Your task to perform on an android device: Open my contact list Image 0: 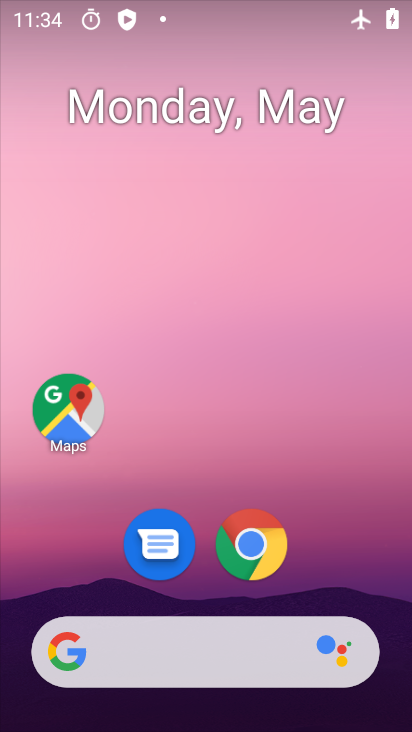
Step 0: drag from (324, 549) to (335, 104)
Your task to perform on an android device: Open my contact list Image 1: 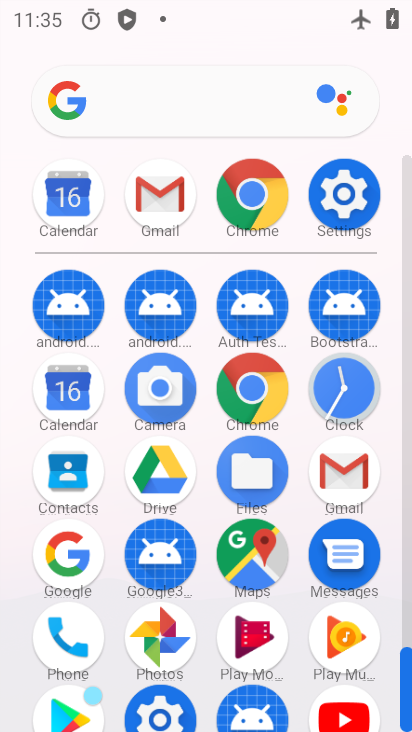
Step 1: click (67, 458)
Your task to perform on an android device: Open my contact list Image 2: 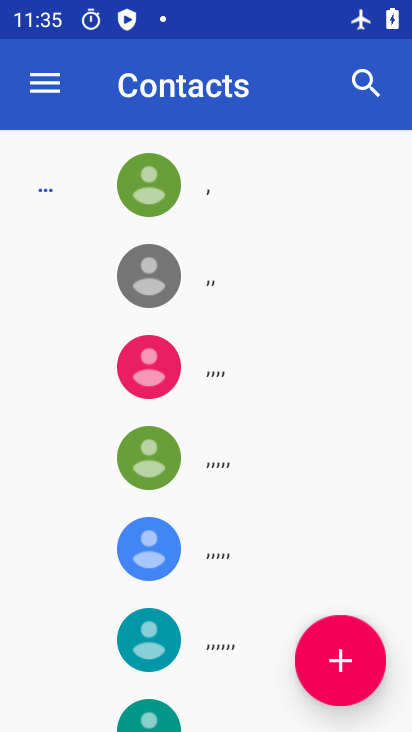
Step 2: task complete